Your task to perform on an android device: Open wifi settings Image 0: 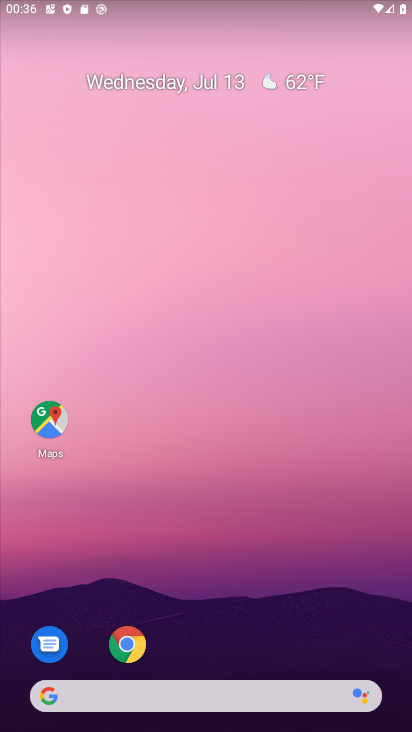
Step 0: drag from (242, 674) to (140, 128)
Your task to perform on an android device: Open wifi settings Image 1: 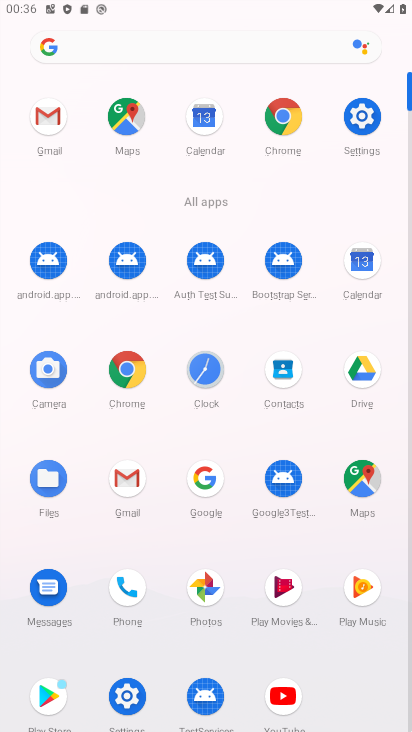
Step 1: click (351, 112)
Your task to perform on an android device: Open wifi settings Image 2: 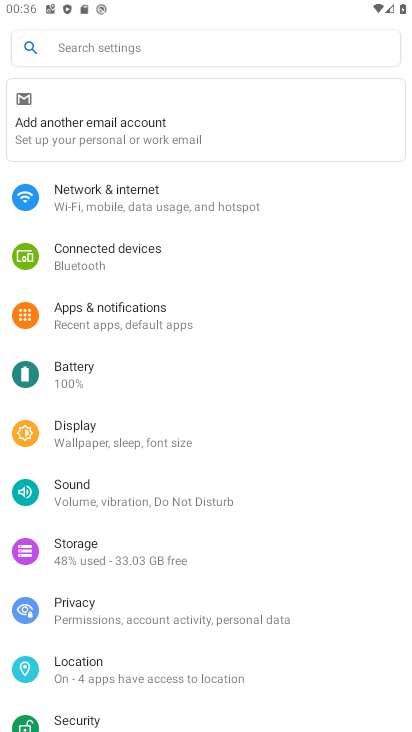
Step 2: click (160, 198)
Your task to perform on an android device: Open wifi settings Image 3: 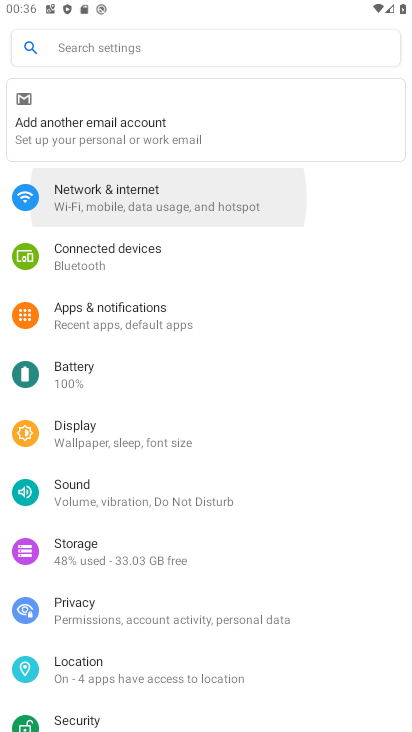
Step 3: click (160, 198)
Your task to perform on an android device: Open wifi settings Image 4: 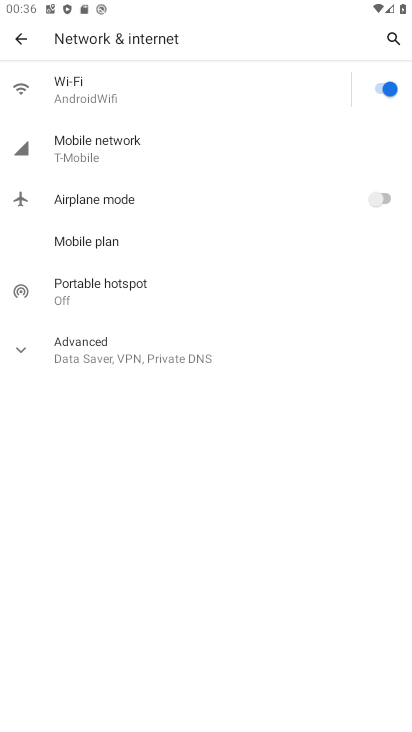
Step 4: click (88, 100)
Your task to perform on an android device: Open wifi settings Image 5: 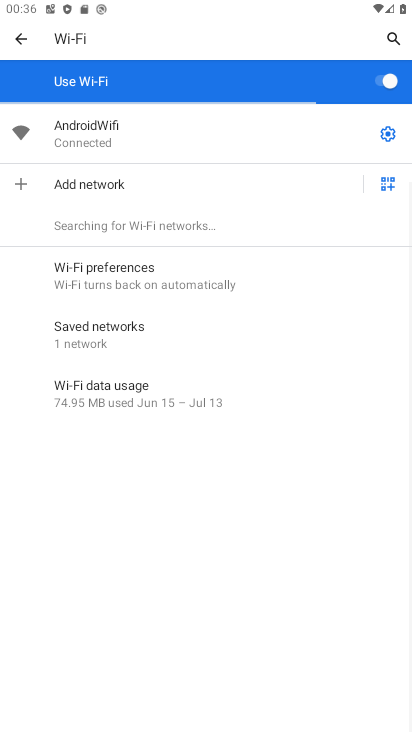
Step 5: task complete